Your task to perform on an android device: open a bookmark in the chrome app Image 0: 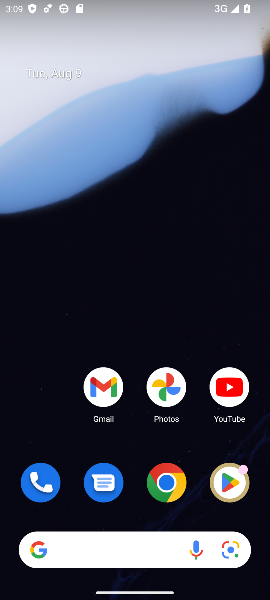
Step 0: click (158, 494)
Your task to perform on an android device: open a bookmark in the chrome app Image 1: 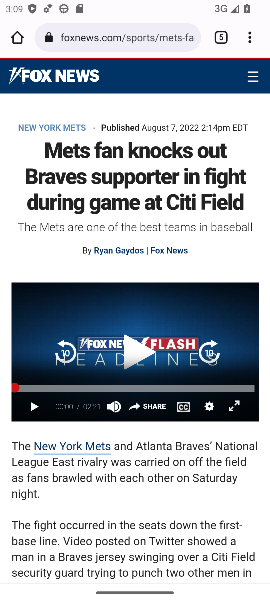
Step 1: click (248, 44)
Your task to perform on an android device: open a bookmark in the chrome app Image 2: 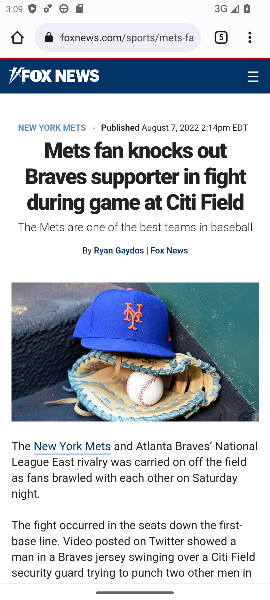
Step 2: drag from (248, 44) to (156, 251)
Your task to perform on an android device: open a bookmark in the chrome app Image 3: 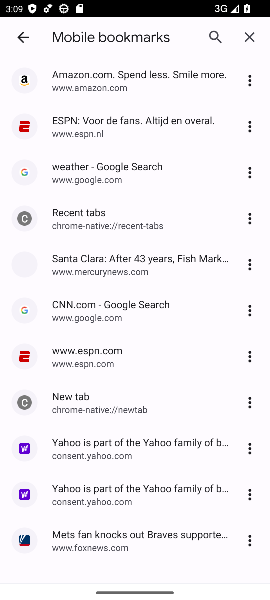
Step 3: click (96, 344)
Your task to perform on an android device: open a bookmark in the chrome app Image 4: 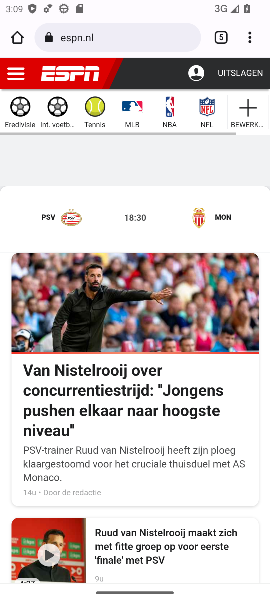
Step 4: task complete